Your task to perform on an android device: turn notification dots off Image 0: 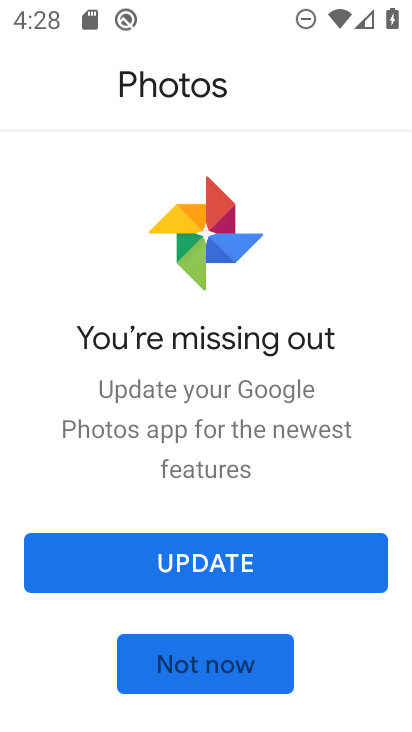
Step 0: press home button
Your task to perform on an android device: turn notification dots off Image 1: 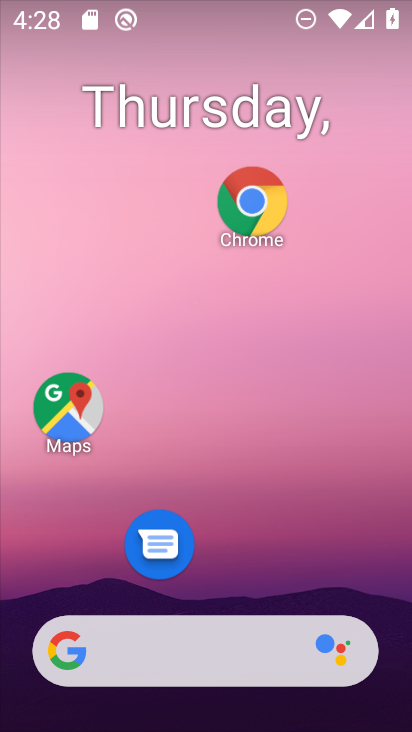
Step 1: drag from (259, 472) to (273, 289)
Your task to perform on an android device: turn notification dots off Image 2: 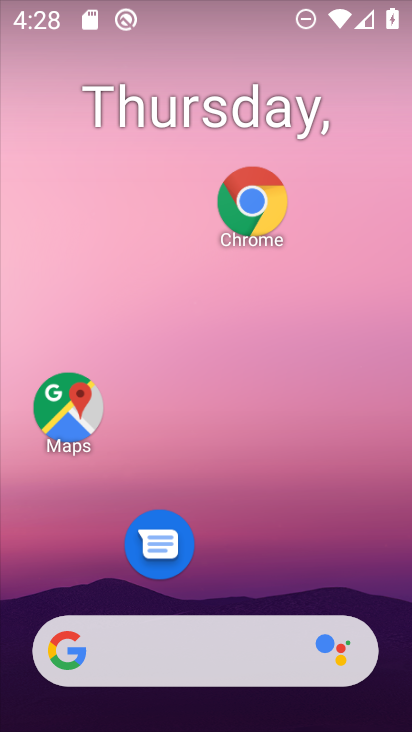
Step 2: drag from (304, 555) to (402, 123)
Your task to perform on an android device: turn notification dots off Image 3: 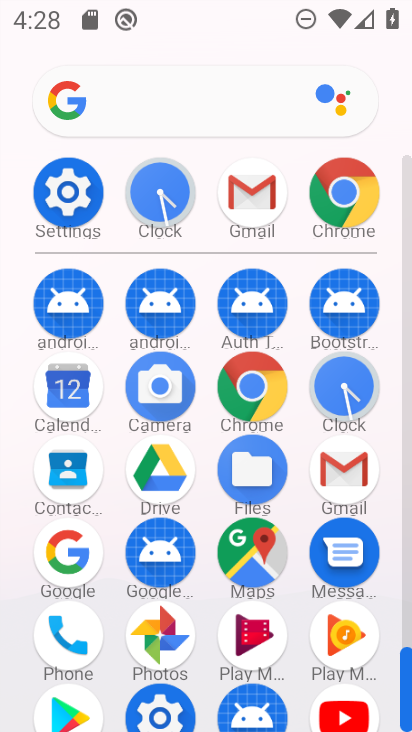
Step 3: click (68, 204)
Your task to perform on an android device: turn notification dots off Image 4: 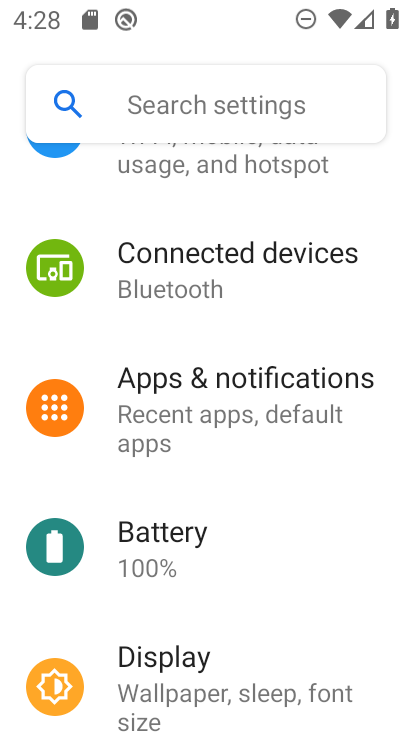
Step 4: click (259, 394)
Your task to perform on an android device: turn notification dots off Image 5: 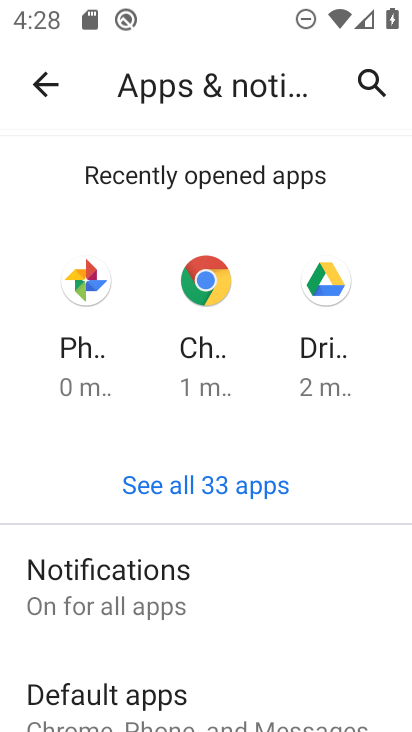
Step 5: drag from (221, 649) to (269, 289)
Your task to perform on an android device: turn notification dots off Image 6: 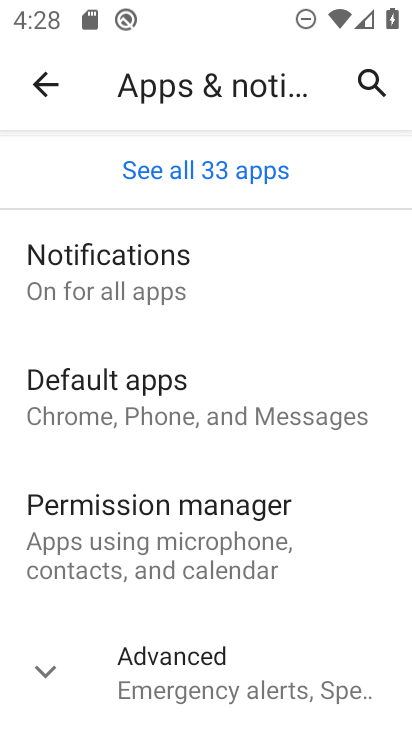
Step 6: click (288, 252)
Your task to perform on an android device: turn notification dots off Image 7: 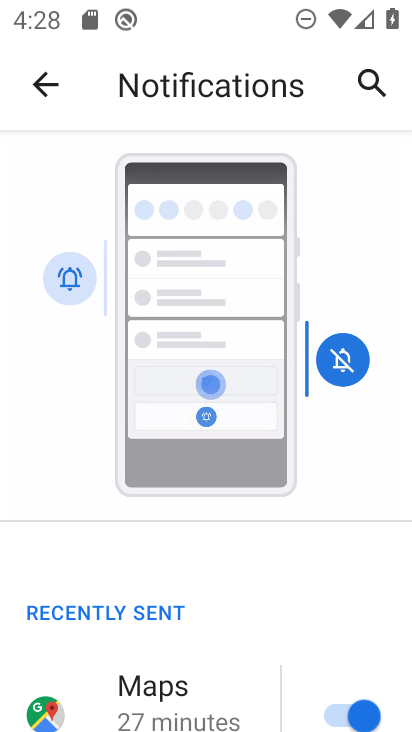
Step 7: task complete